Your task to perform on an android device: open app "PUBG MOBILE" (install if not already installed) and go to login screen Image 0: 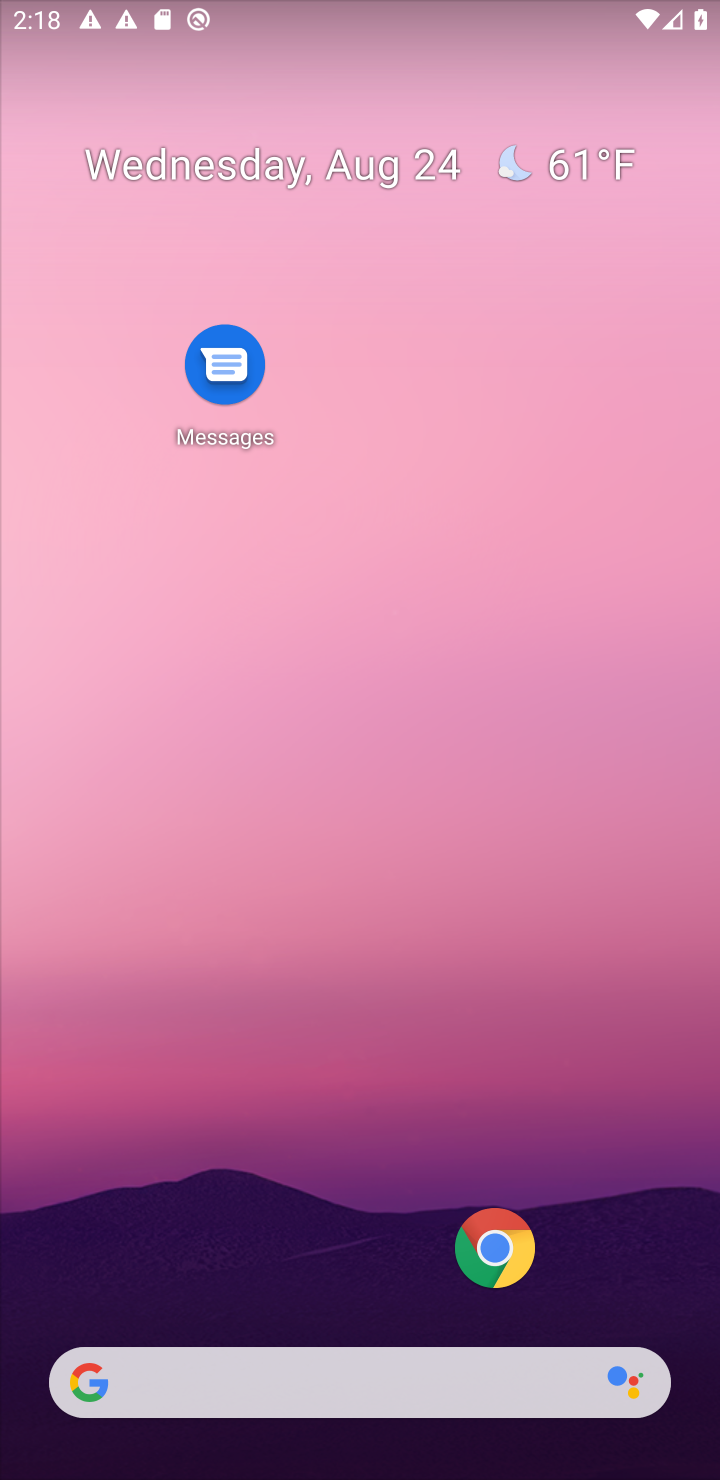
Step 0: drag from (114, 1128) to (255, 402)
Your task to perform on an android device: open app "PUBG MOBILE" (install if not already installed) and go to login screen Image 1: 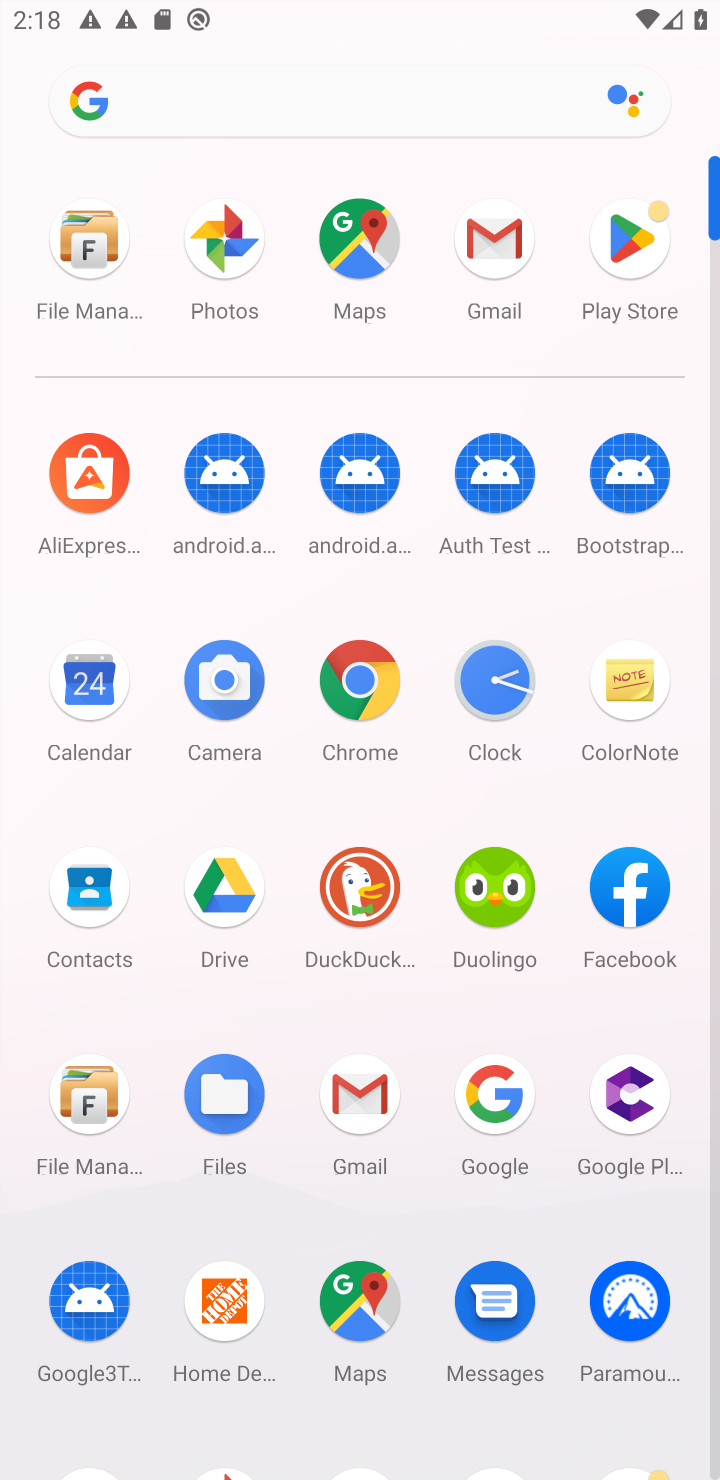
Step 1: click (631, 237)
Your task to perform on an android device: open app "PUBG MOBILE" (install if not already installed) and go to login screen Image 2: 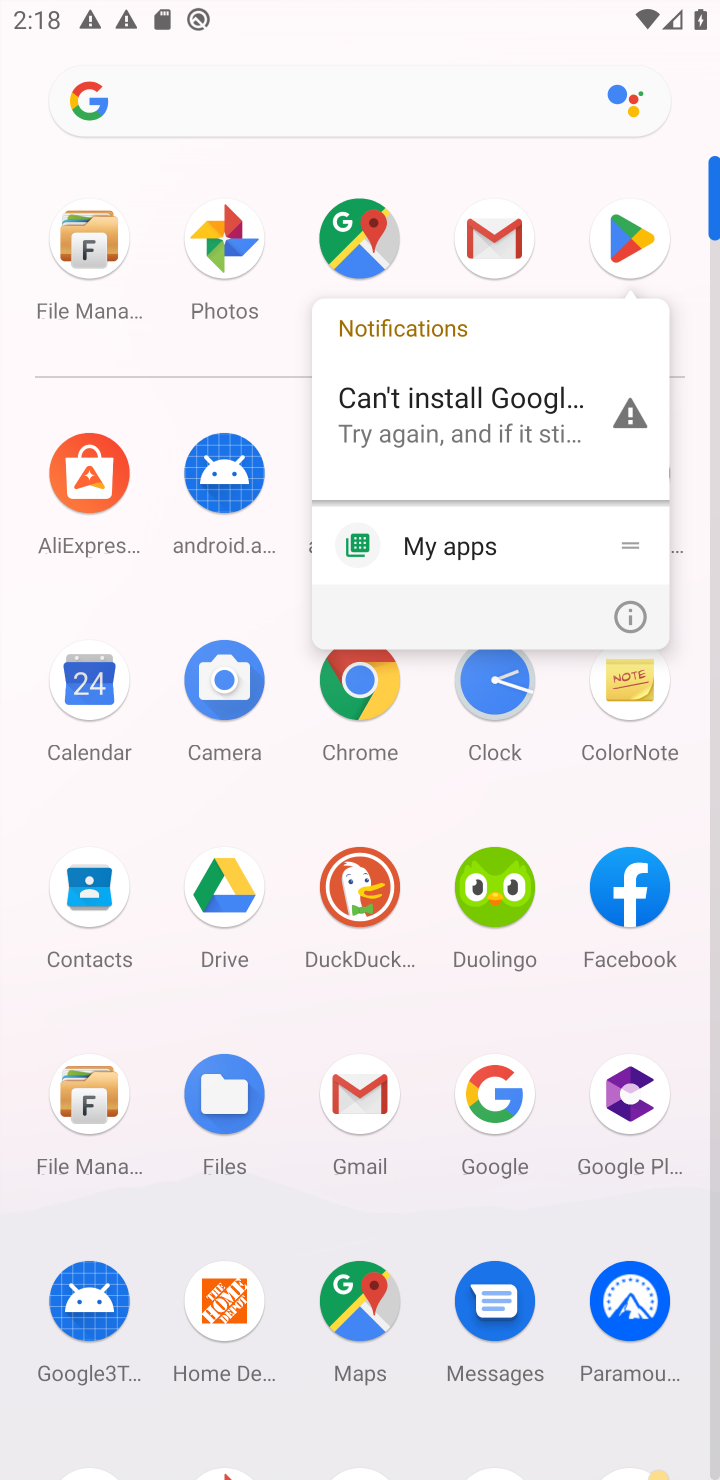
Step 2: click (631, 245)
Your task to perform on an android device: open app "PUBG MOBILE" (install if not already installed) and go to login screen Image 3: 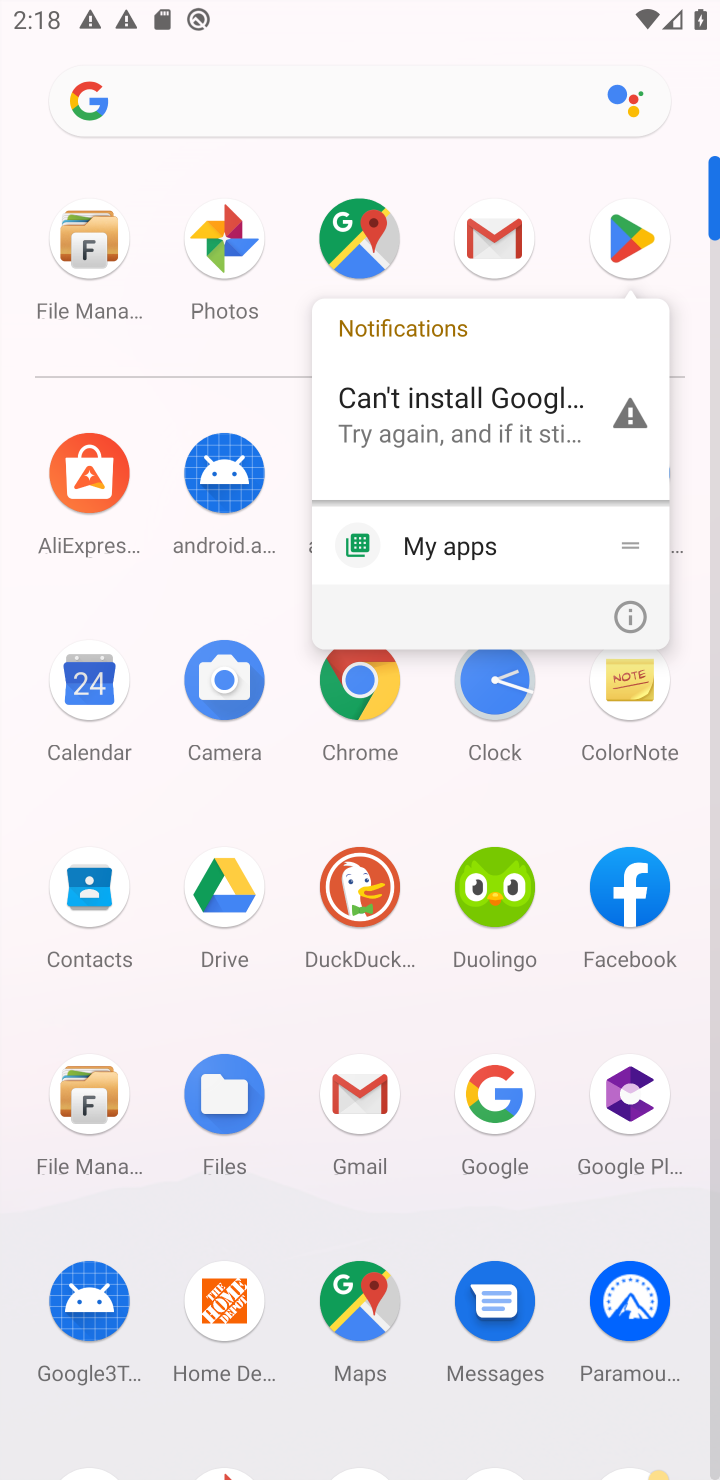
Step 3: drag from (647, 323) to (612, 237)
Your task to perform on an android device: open app "PUBG MOBILE" (install if not already installed) and go to login screen Image 4: 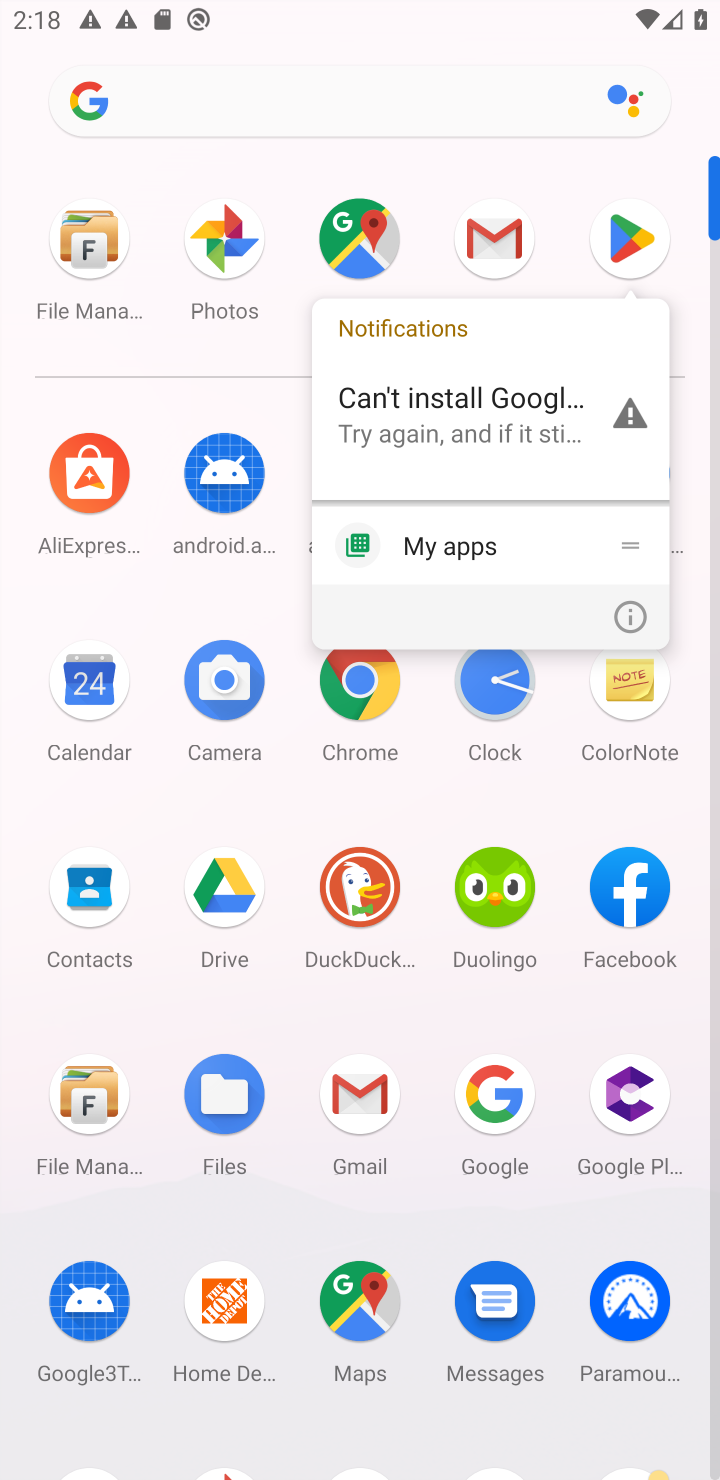
Step 4: click (621, 226)
Your task to perform on an android device: open app "PUBG MOBILE" (install if not already installed) and go to login screen Image 5: 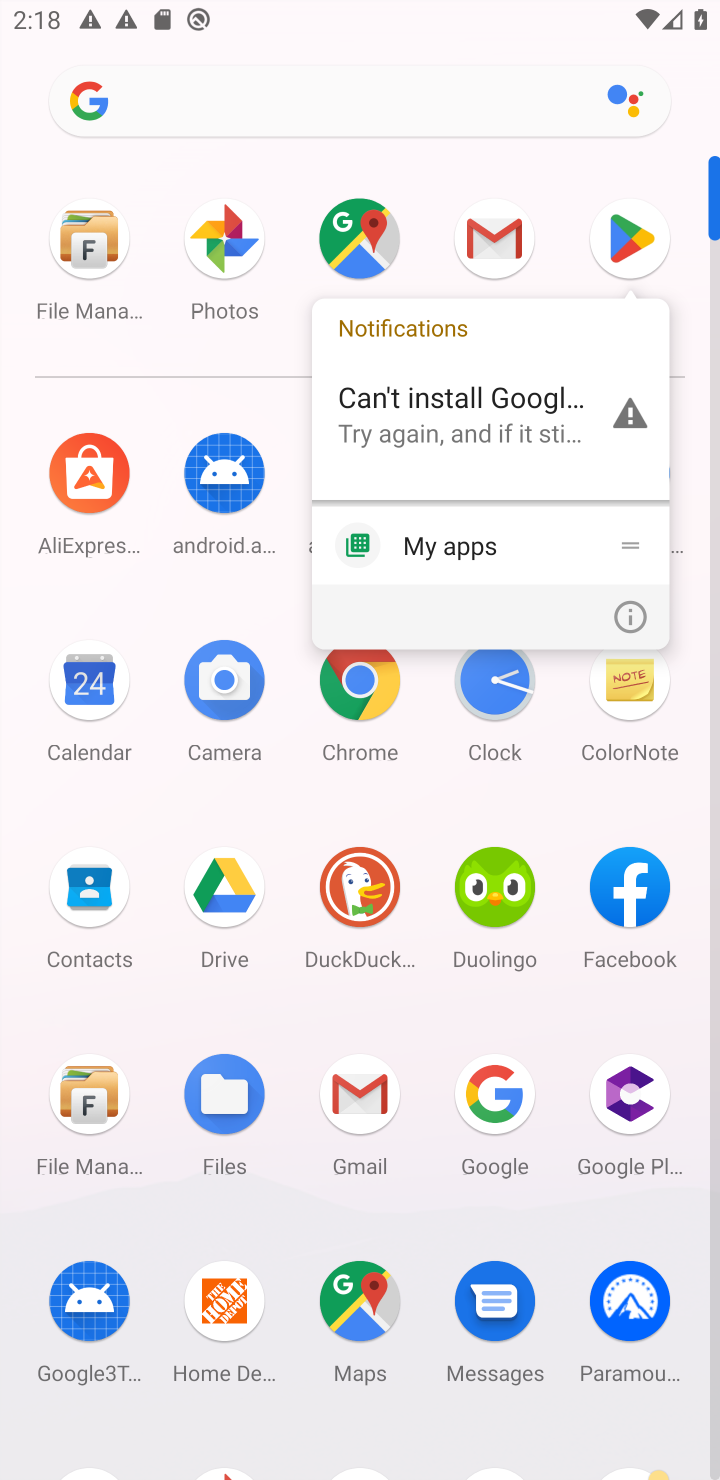
Step 5: drag from (387, 1255) to (451, 189)
Your task to perform on an android device: open app "PUBG MOBILE" (install if not already installed) and go to login screen Image 6: 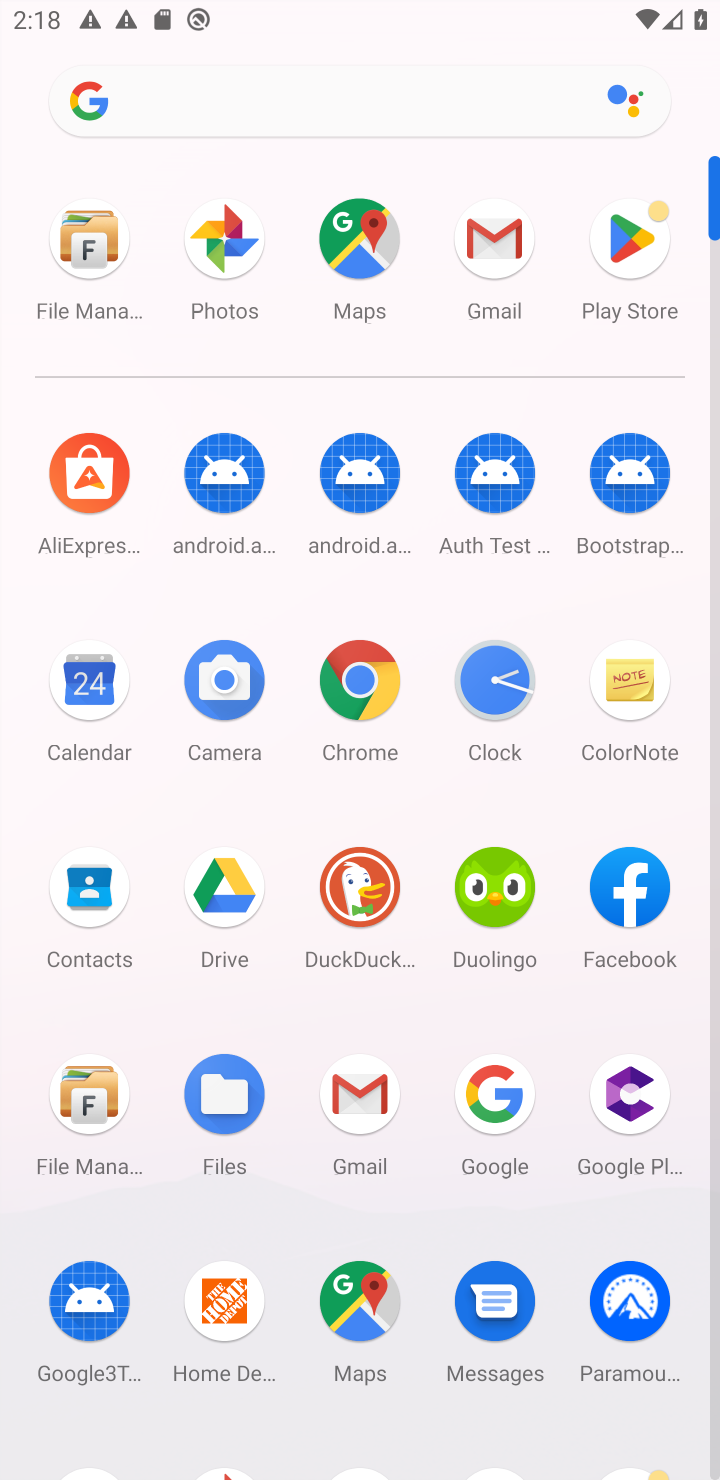
Step 6: drag from (413, 685) to (418, 354)
Your task to perform on an android device: open app "PUBG MOBILE" (install if not already installed) and go to login screen Image 7: 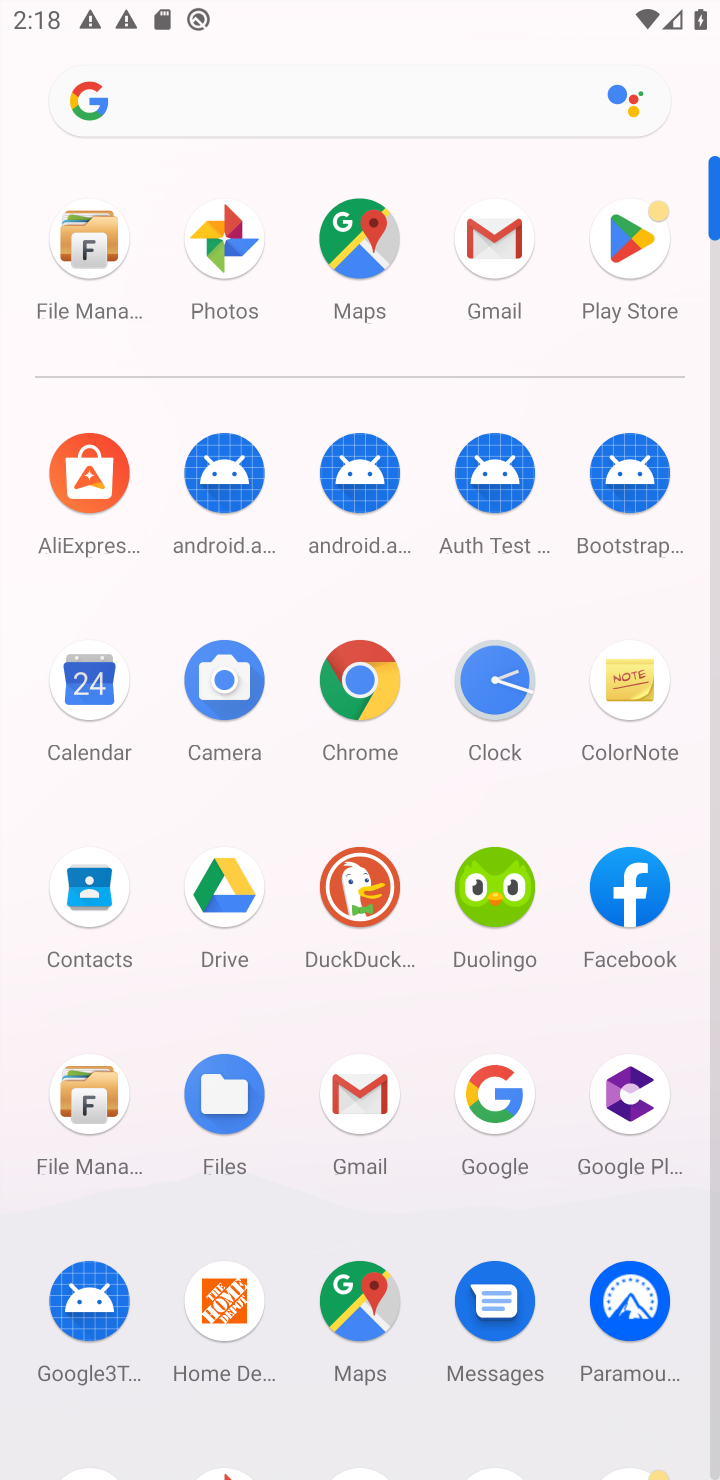
Step 7: drag from (336, 457) to (542, 561)
Your task to perform on an android device: open app "PUBG MOBILE" (install if not already installed) and go to login screen Image 8: 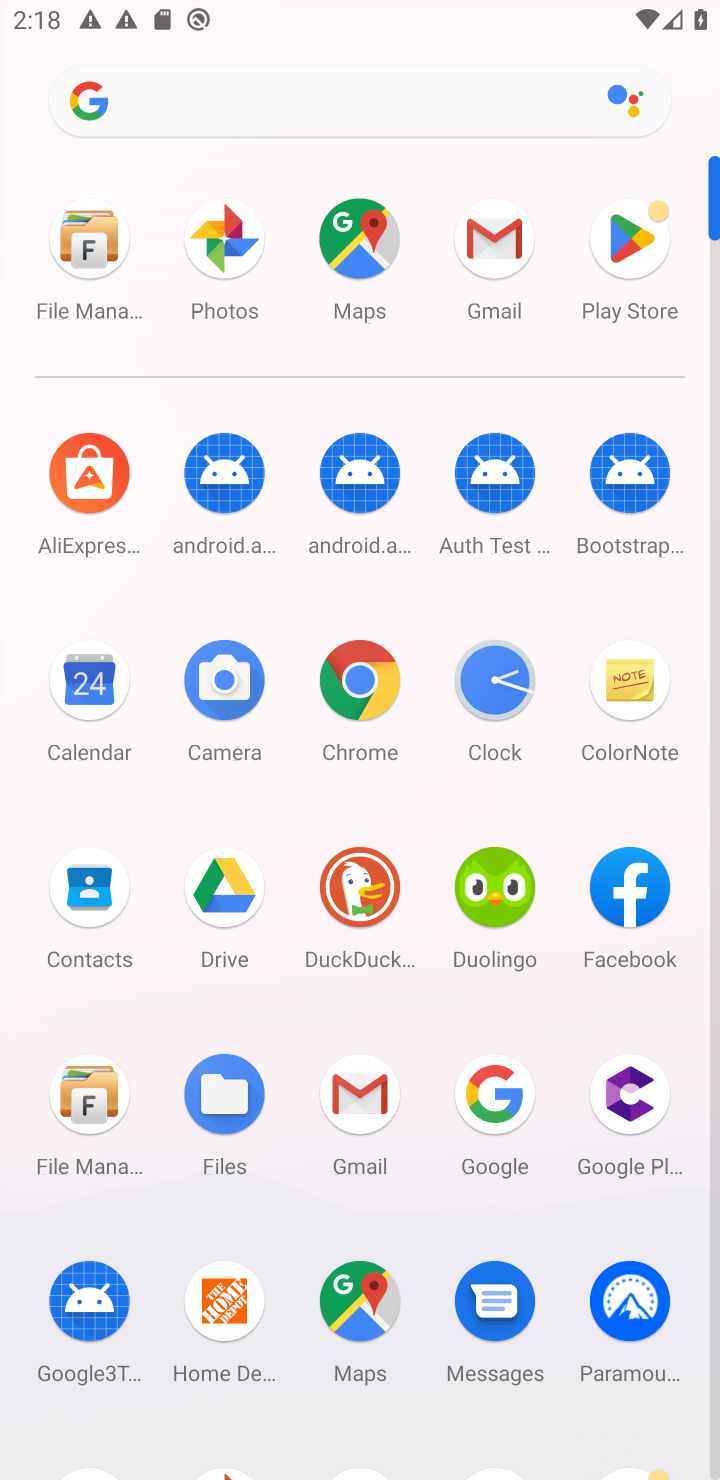
Step 8: click (636, 249)
Your task to perform on an android device: open app "PUBG MOBILE" (install if not already installed) and go to login screen Image 9: 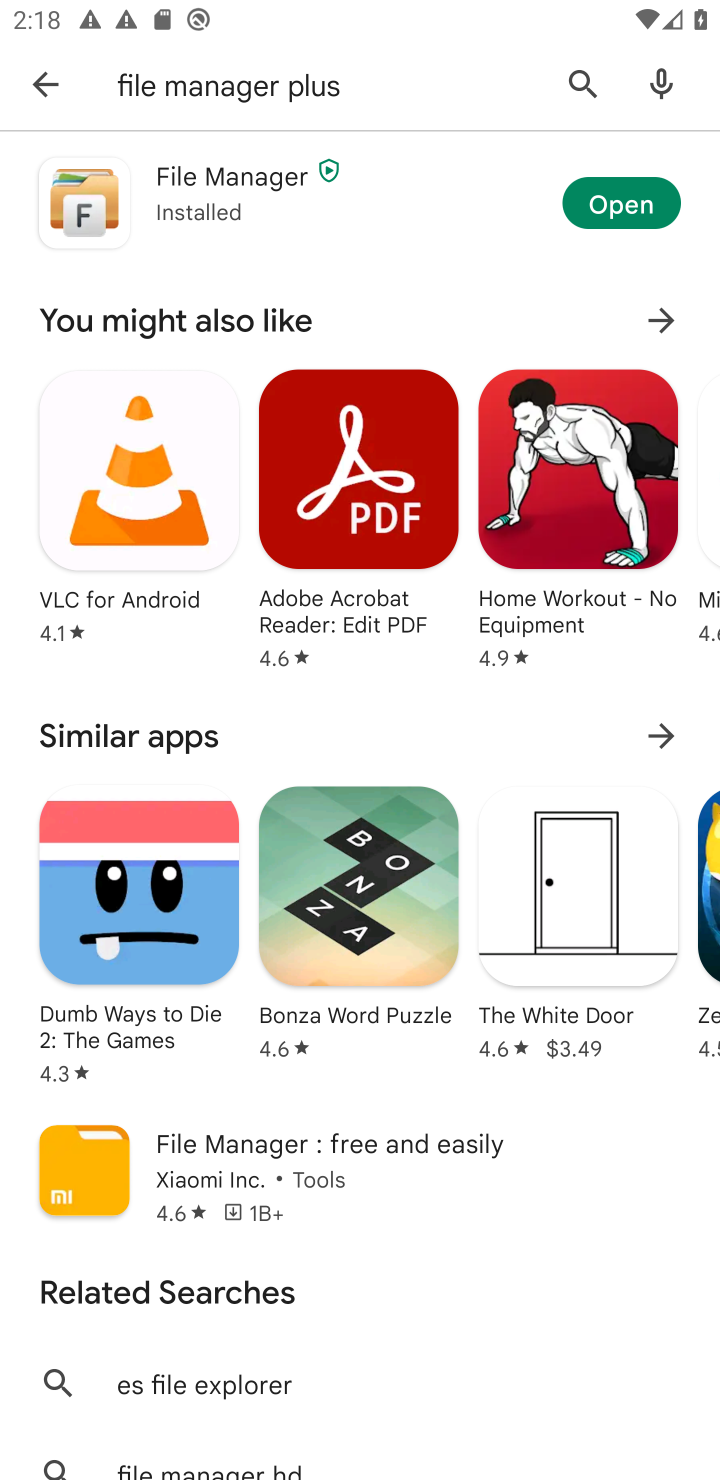
Step 9: click (583, 74)
Your task to perform on an android device: open app "PUBG MOBILE" (install if not already installed) and go to login screen Image 10: 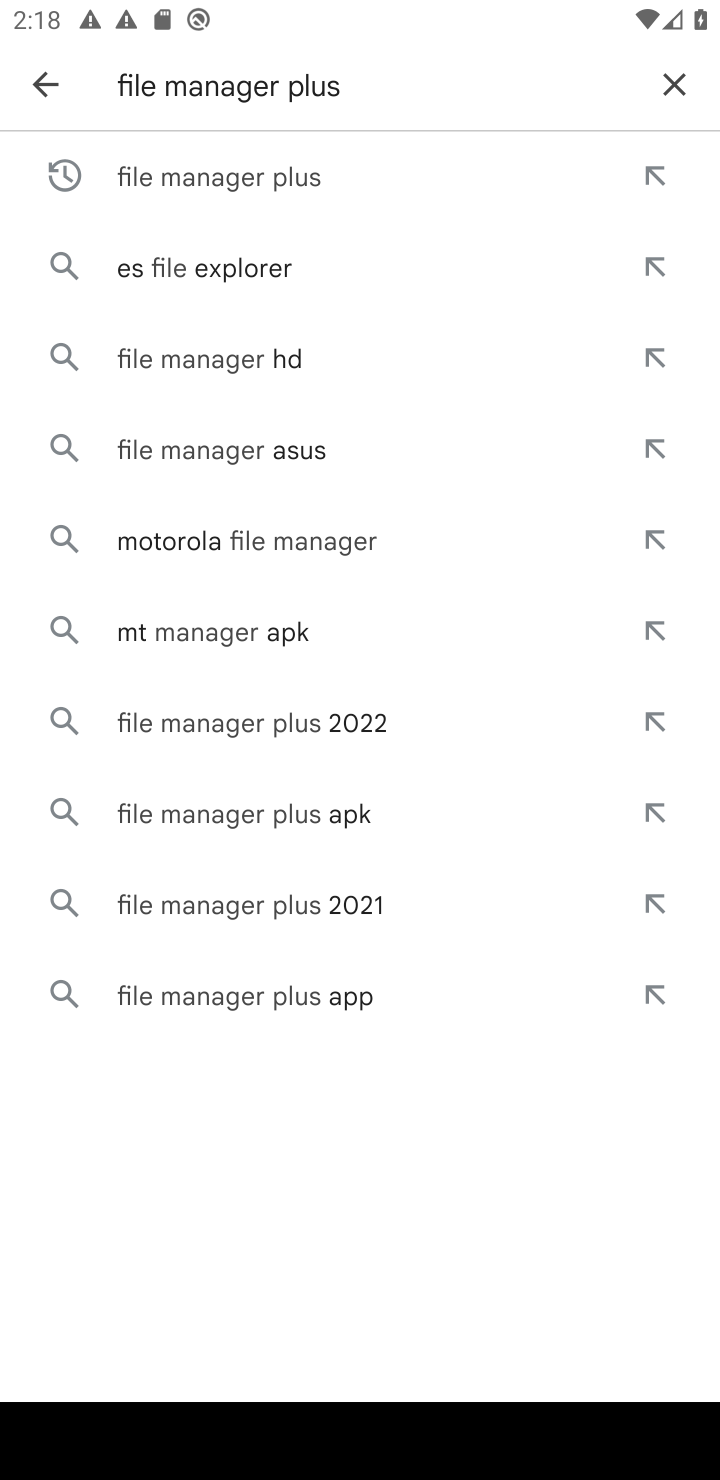
Step 10: click (664, 89)
Your task to perform on an android device: open app "PUBG MOBILE" (install if not already installed) and go to login screen Image 11: 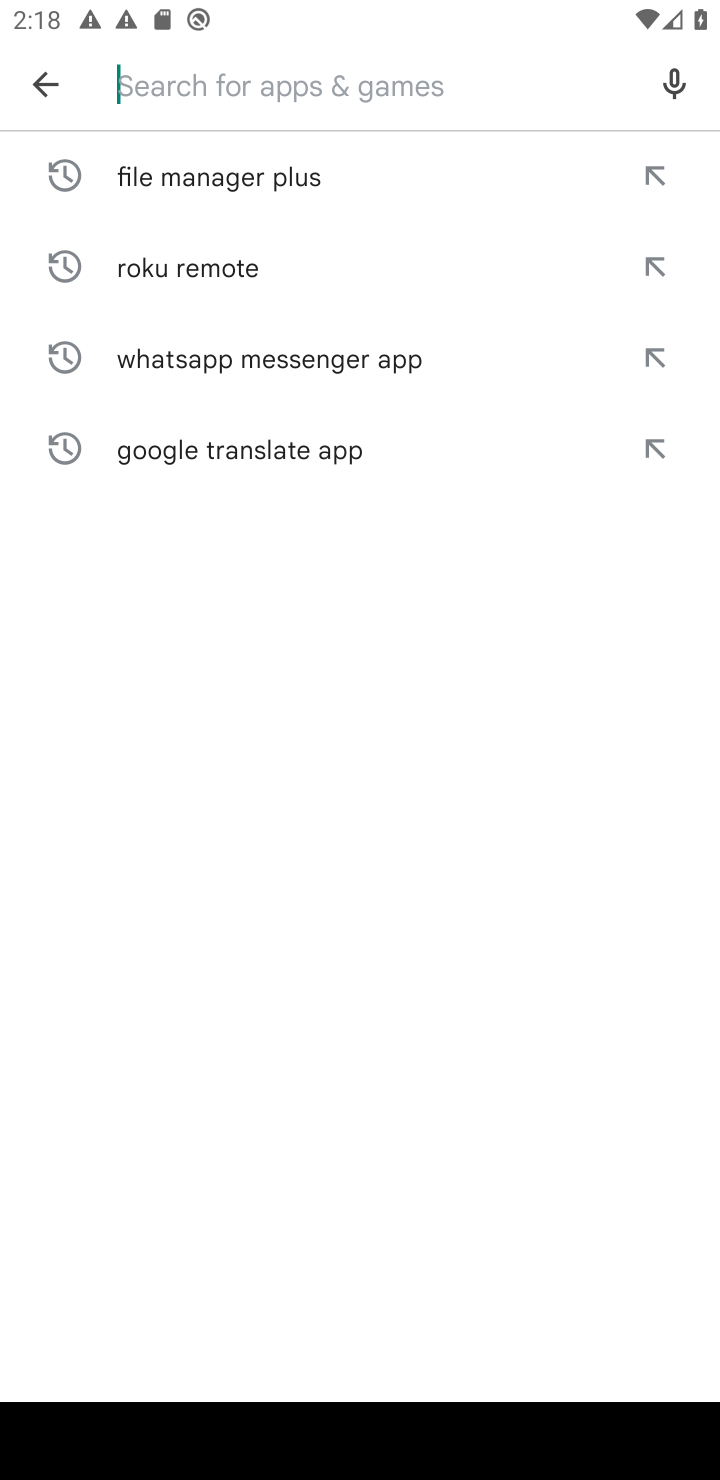
Step 11: click (316, 71)
Your task to perform on an android device: open app "PUBG MOBILE" (install if not already installed) and go to login screen Image 12: 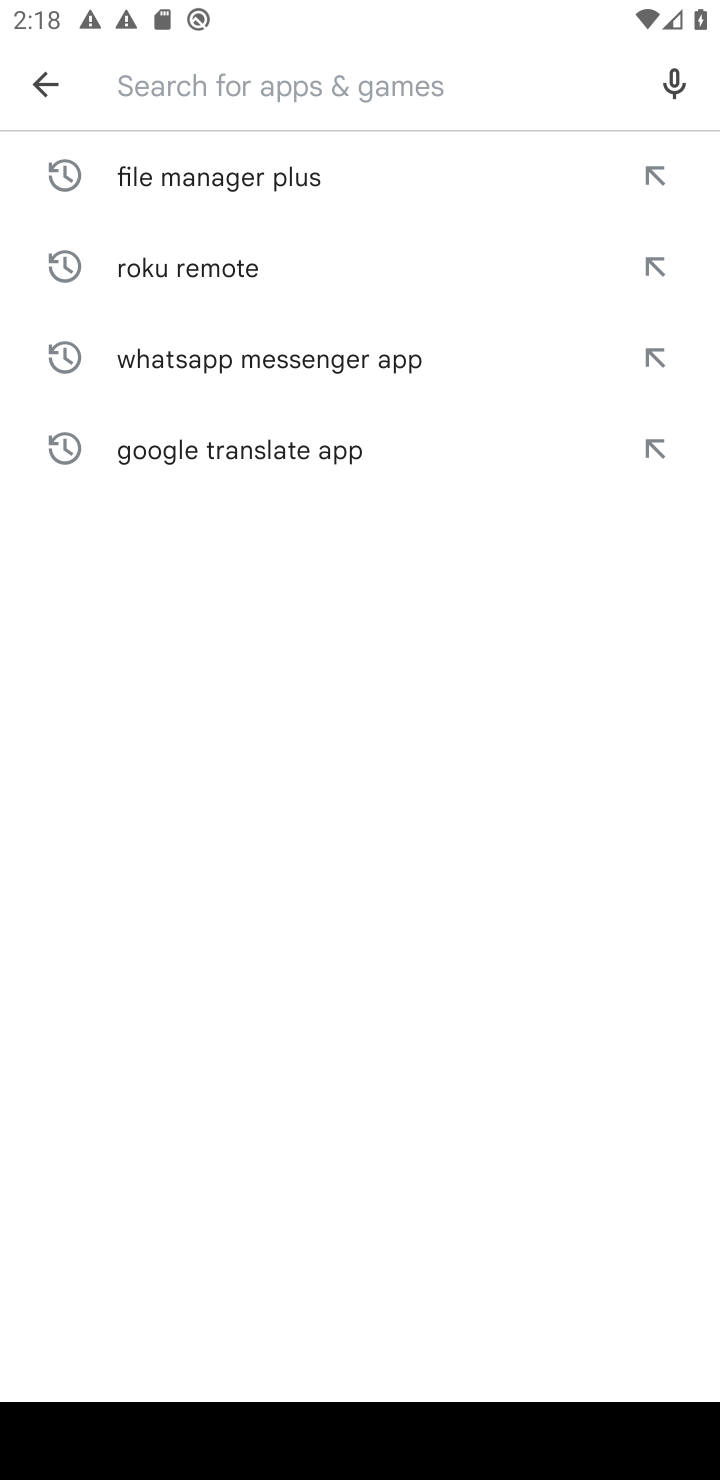
Step 12: type "PUBG MOBILE "
Your task to perform on an android device: open app "PUBG MOBILE" (install if not already installed) and go to login screen Image 13: 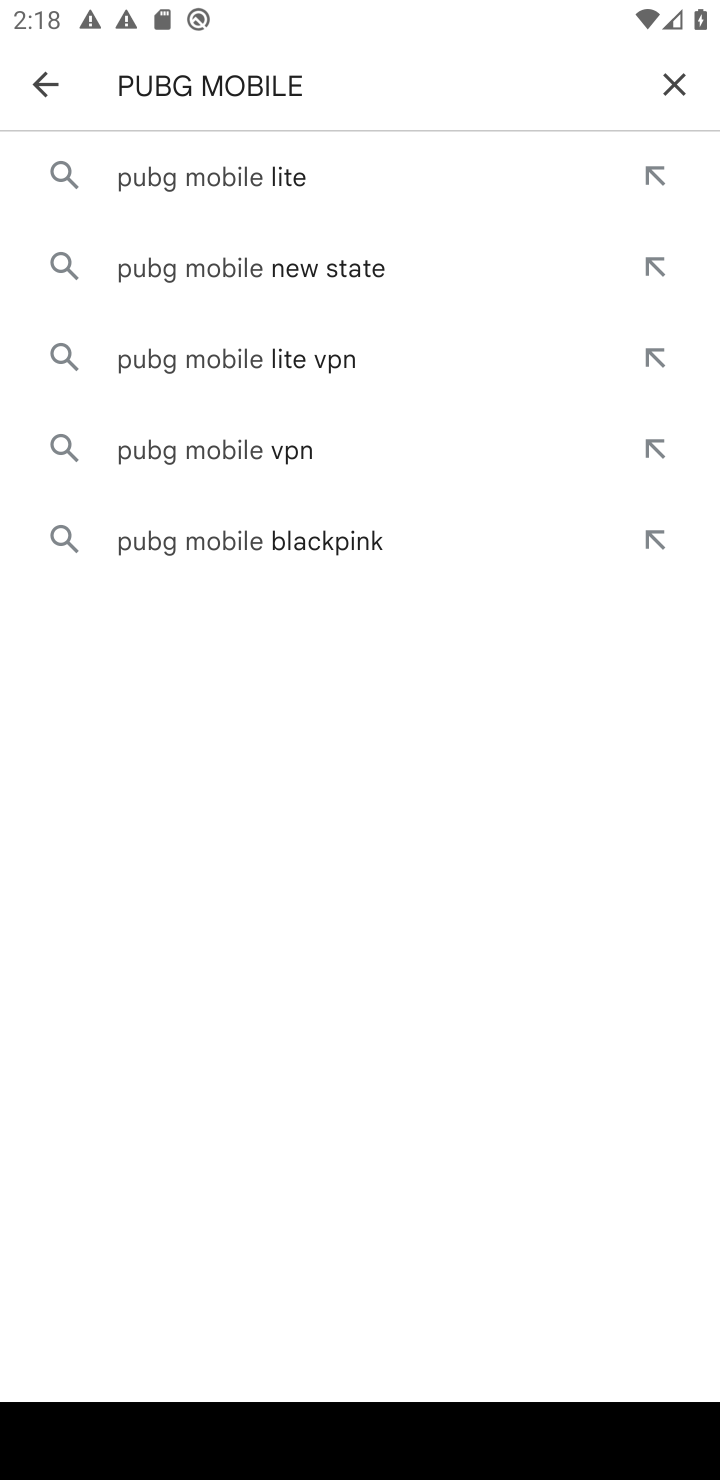
Step 13: click (289, 183)
Your task to perform on an android device: open app "PUBG MOBILE" (install if not already installed) and go to login screen Image 14: 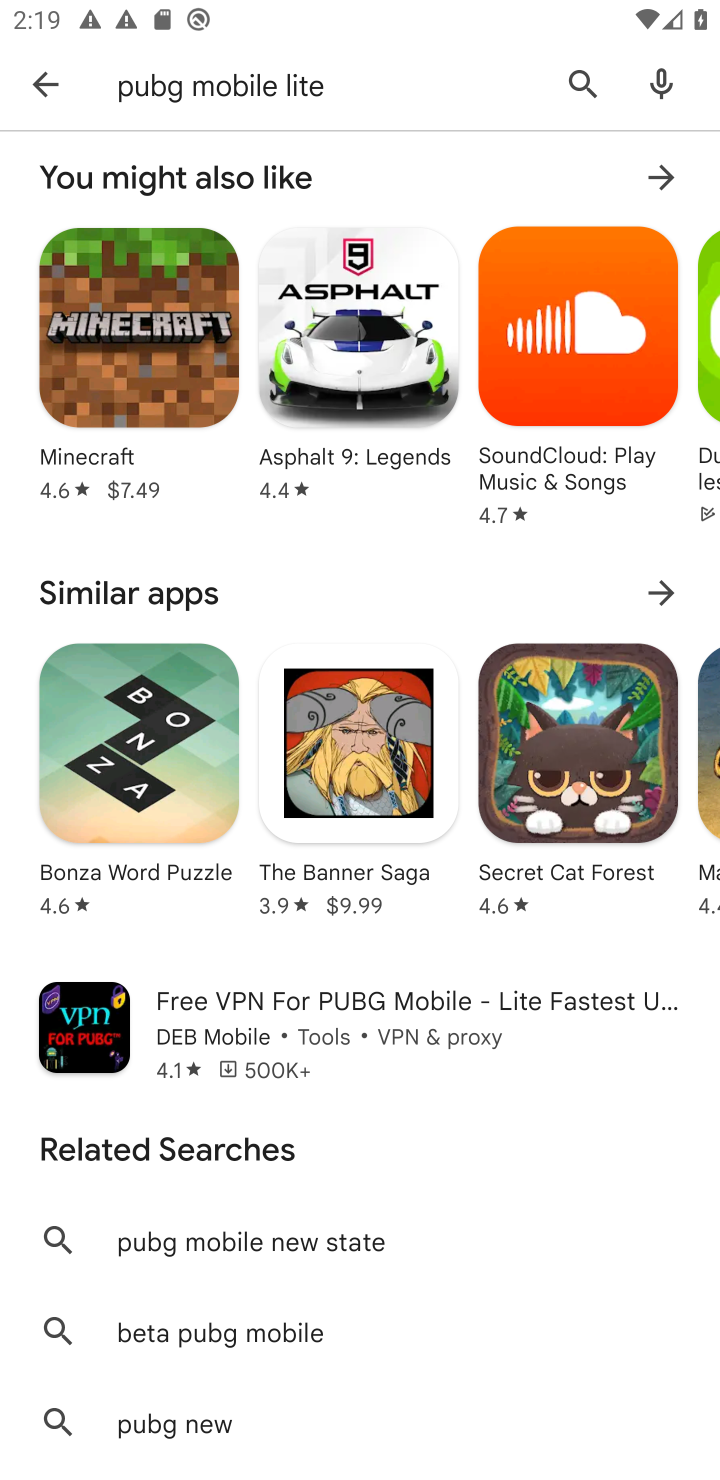
Step 14: click (326, 1236)
Your task to perform on an android device: open app "PUBG MOBILE" (install if not already installed) and go to login screen Image 15: 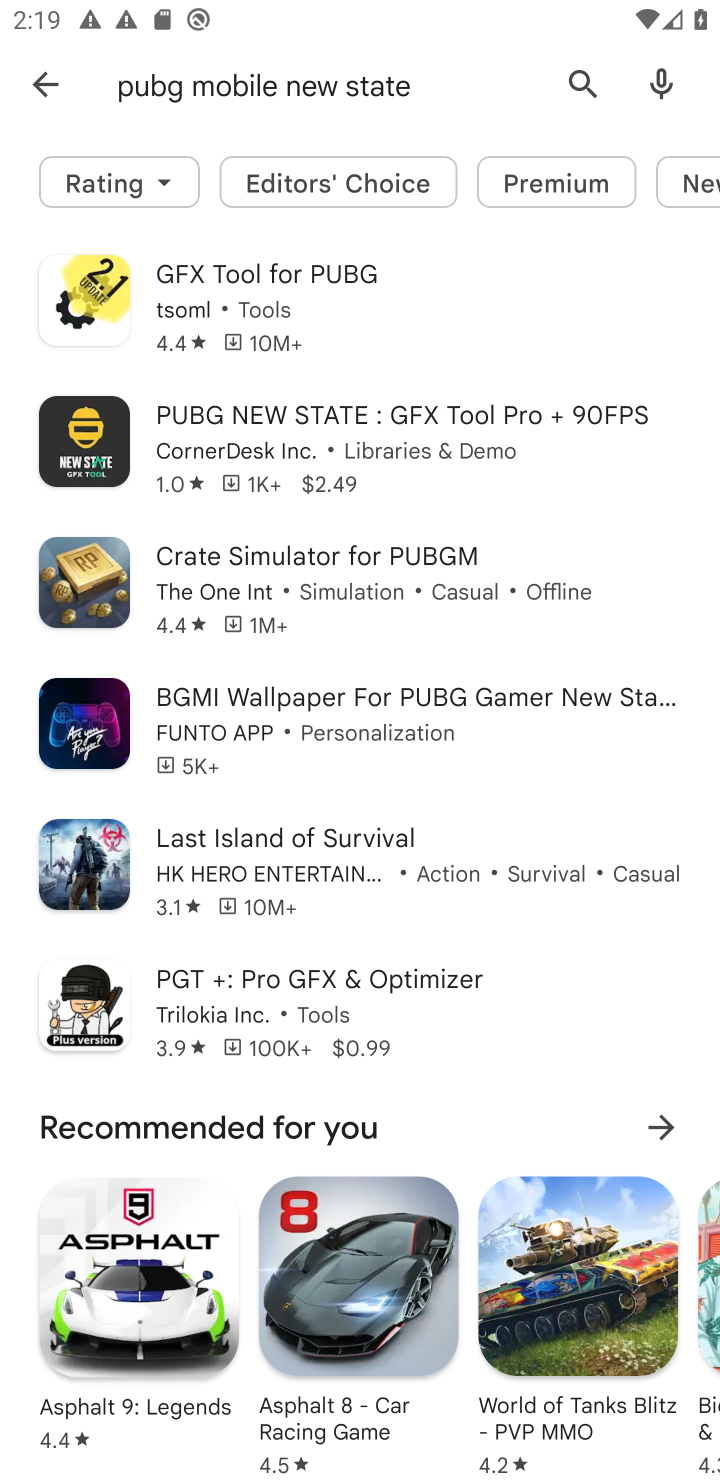
Step 15: click (305, 281)
Your task to perform on an android device: open app "PUBG MOBILE" (install if not already installed) and go to login screen Image 16: 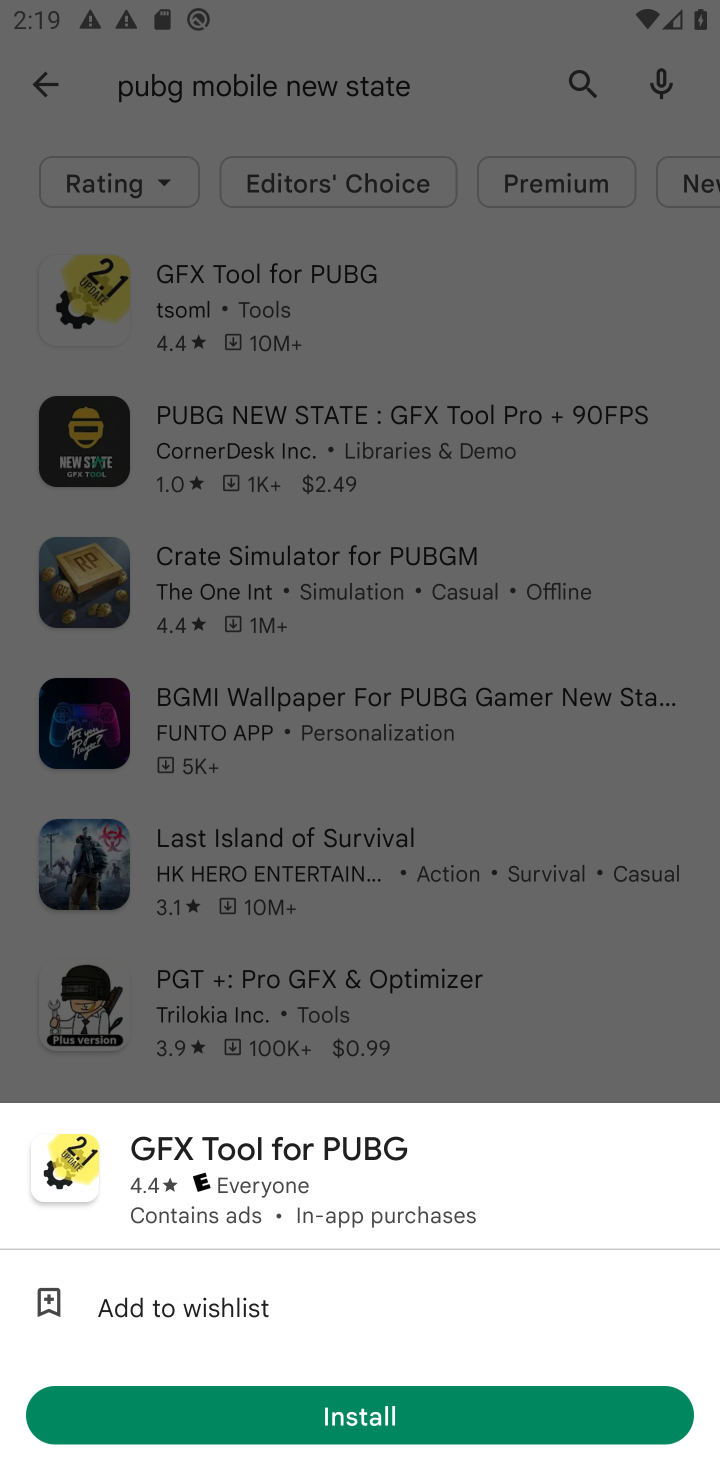
Step 16: click (433, 1410)
Your task to perform on an android device: open app "PUBG MOBILE" (install if not already installed) and go to login screen Image 17: 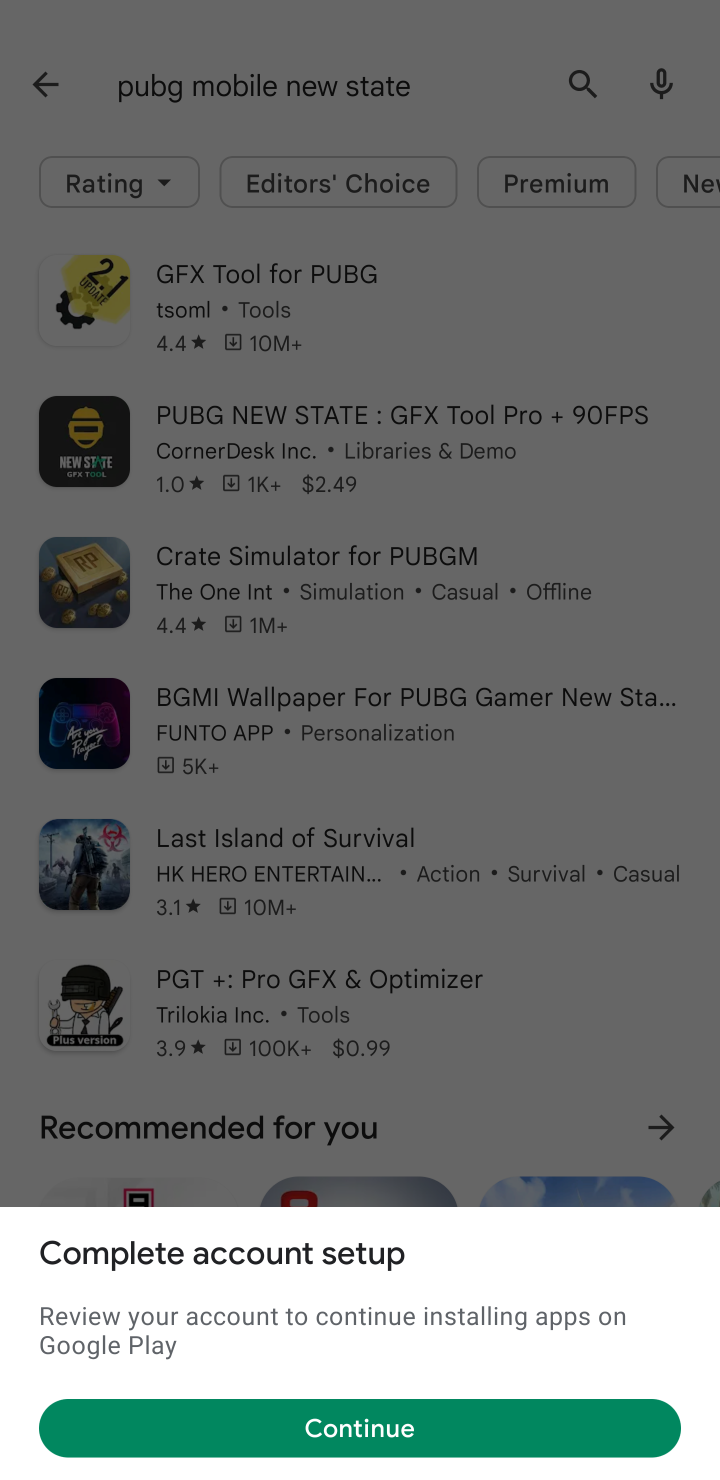
Step 17: task complete